Your task to perform on an android device: set the timer Image 0: 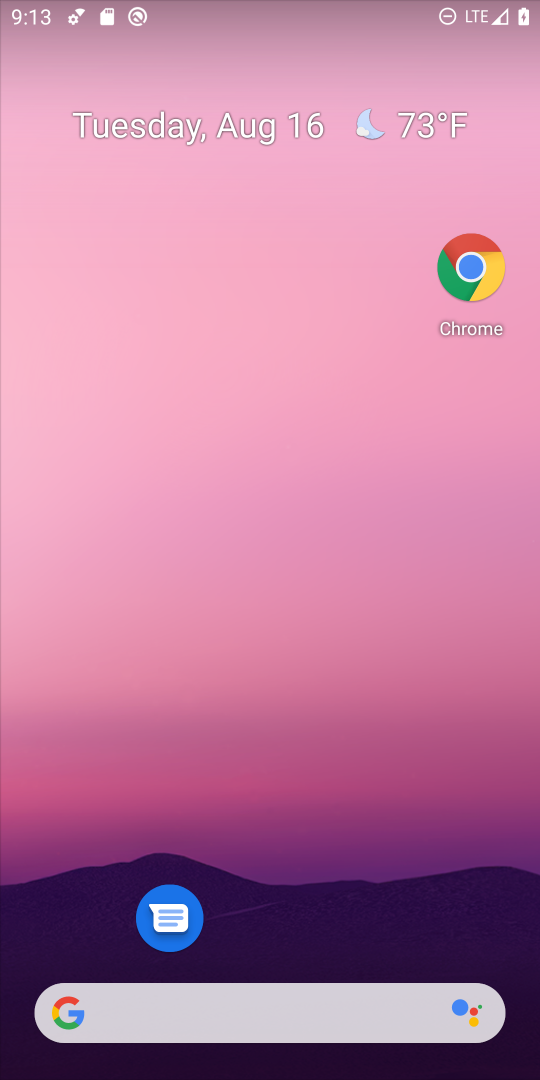
Step 0: drag from (366, 973) to (366, 142)
Your task to perform on an android device: set the timer Image 1: 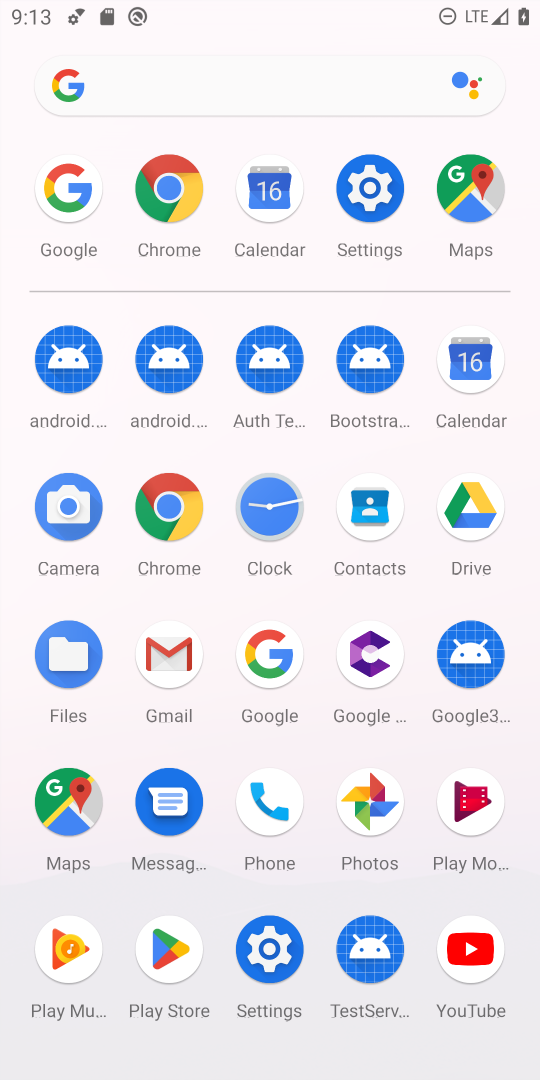
Step 1: click (280, 526)
Your task to perform on an android device: set the timer Image 2: 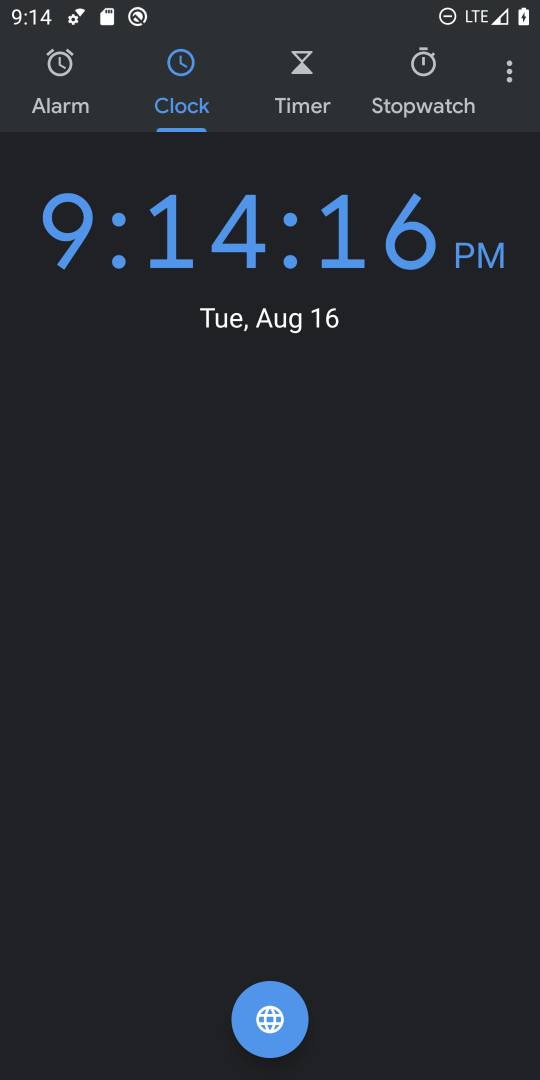
Step 2: click (302, 114)
Your task to perform on an android device: set the timer Image 3: 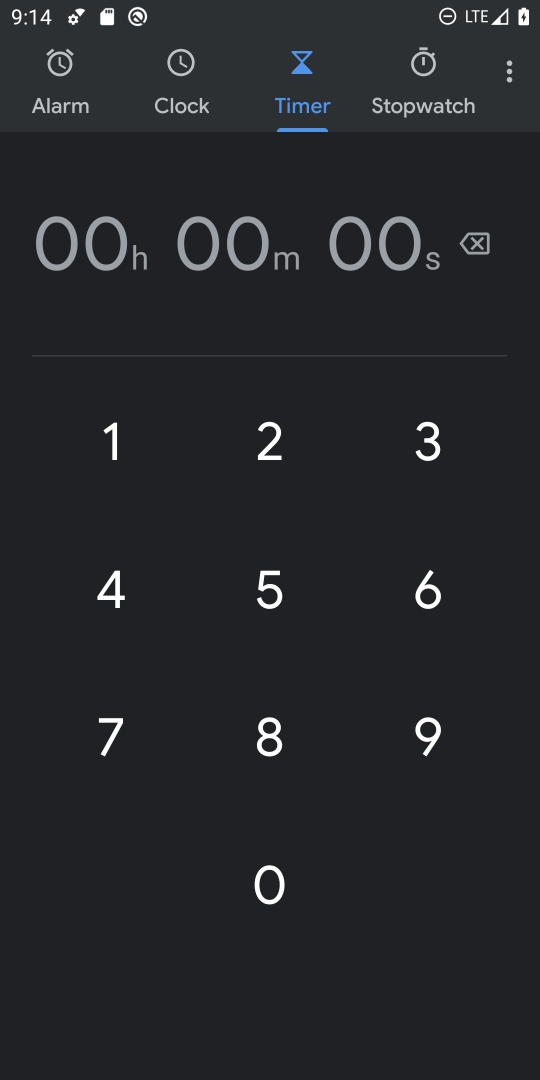
Step 3: click (289, 445)
Your task to perform on an android device: set the timer Image 4: 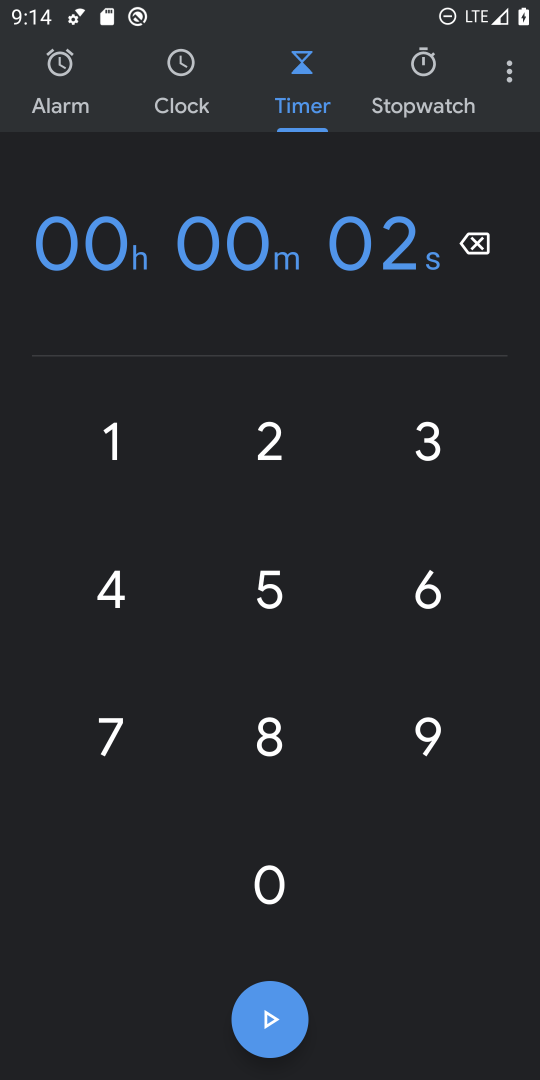
Step 4: click (284, 1032)
Your task to perform on an android device: set the timer Image 5: 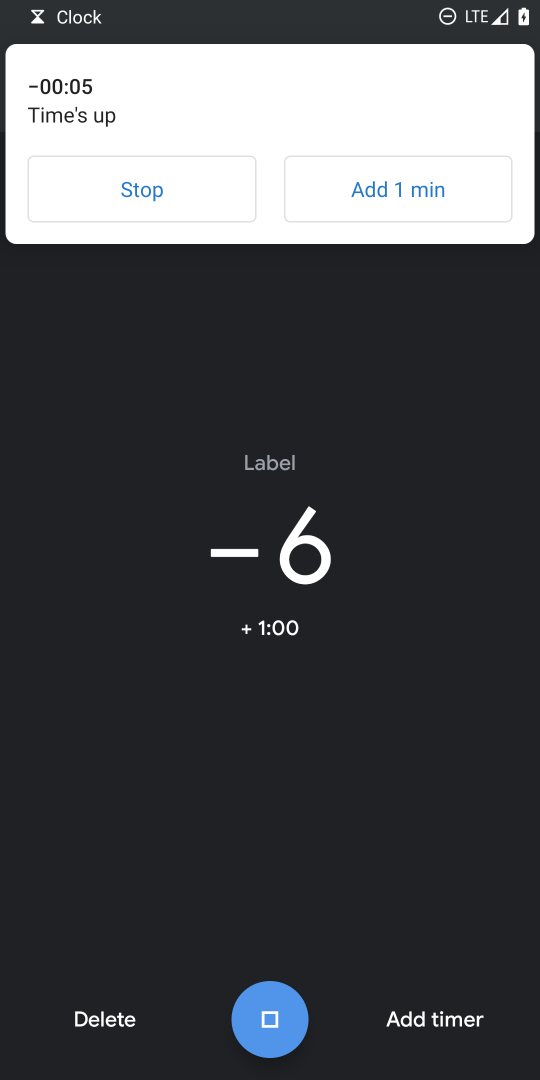
Step 5: task complete